Your task to perform on an android device: Open Google Maps Image 0: 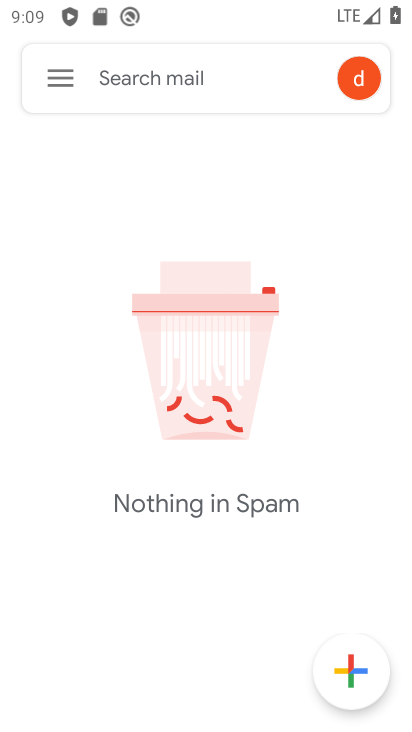
Step 0: press home button
Your task to perform on an android device: Open Google Maps Image 1: 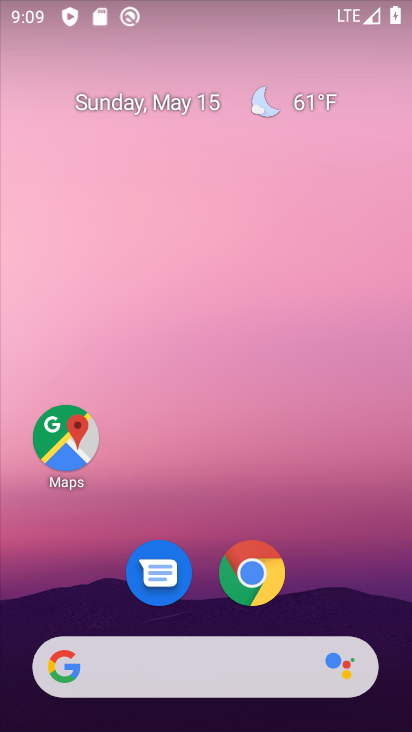
Step 1: click (72, 439)
Your task to perform on an android device: Open Google Maps Image 2: 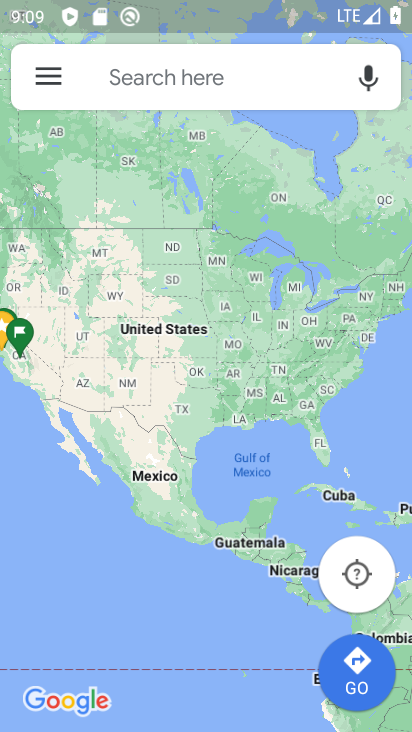
Step 2: task complete